Your task to perform on an android device: change the clock display to digital Image 0: 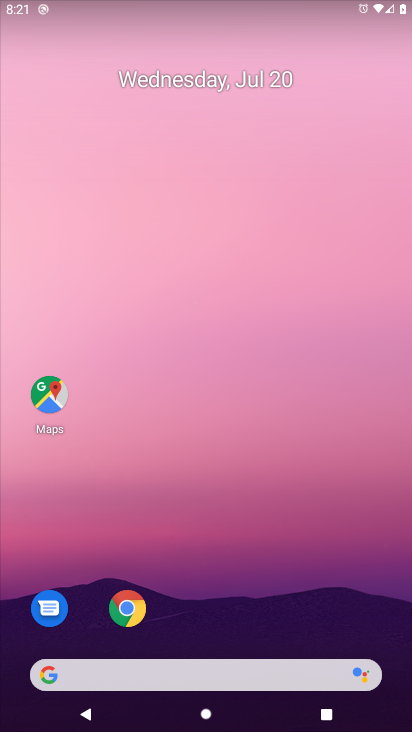
Step 0: drag from (267, 652) to (257, 12)
Your task to perform on an android device: change the clock display to digital Image 1: 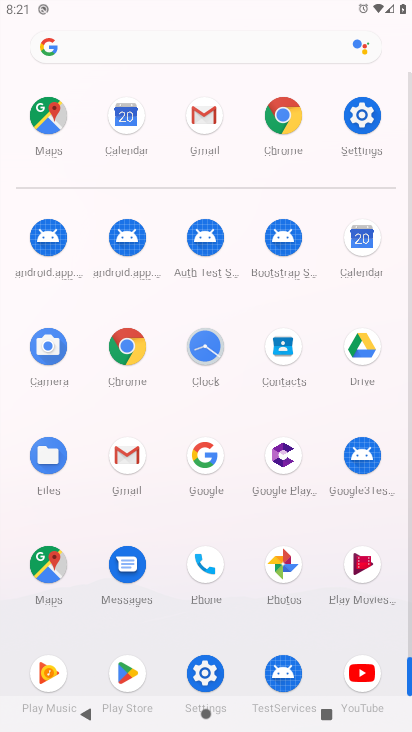
Step 1: click (194, 355)
Your task to perform on an android device: change the clock display to digital Image 2: 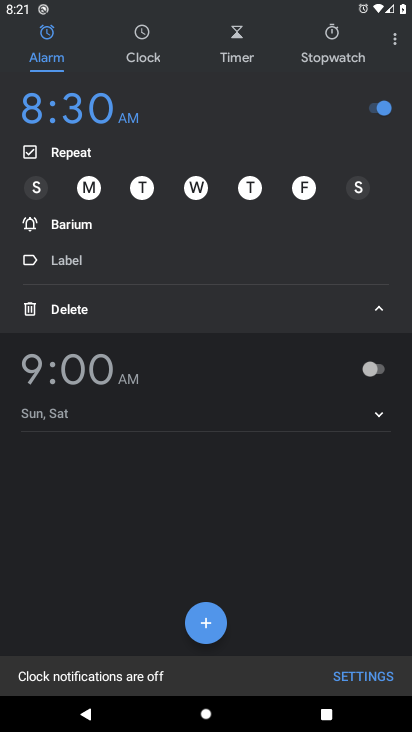
Step 2: click (401, 39)
Your task to perform on an android device: change the clock display to digital Image 3: 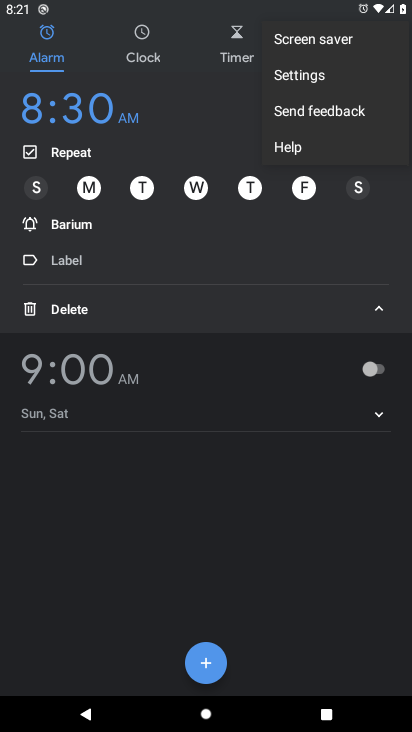
Step 3: click (312, 83)
Your task to perform on an android device: change the clock display to digital Image 4: 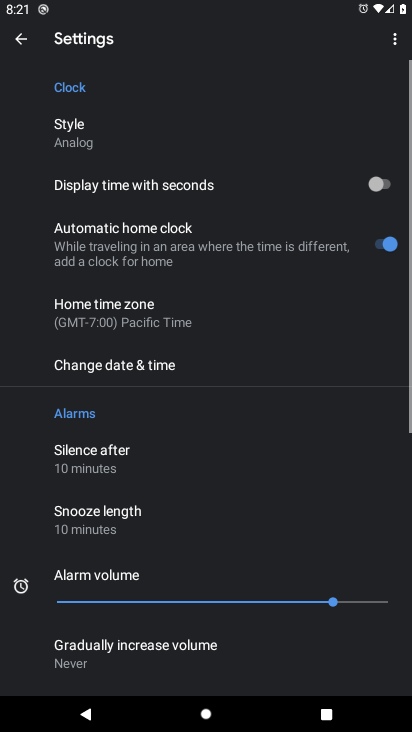
Step 4: click (107, 143)
Your task to perform on an android device: change the clock display to digital Image 5: 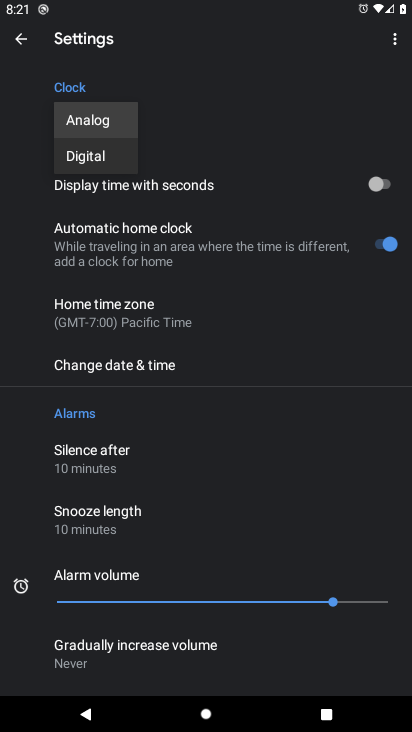
Step 5: click (96, 166)
Your task to perform on an android device: change the clock display to digital Image 6: 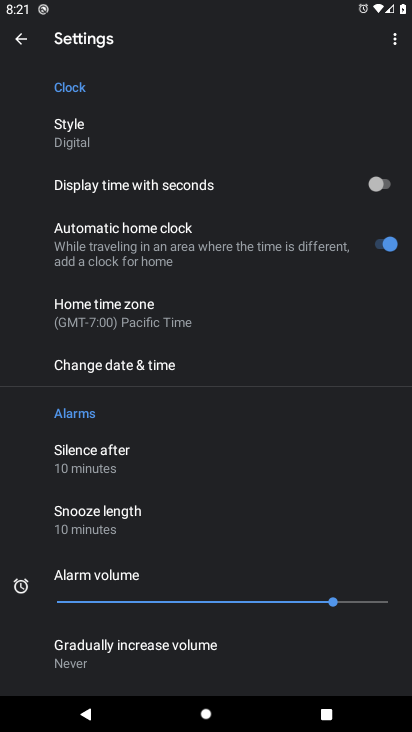
Step 6: task complete